Your task to perform on an android device: turn off airplane mode Image 0: 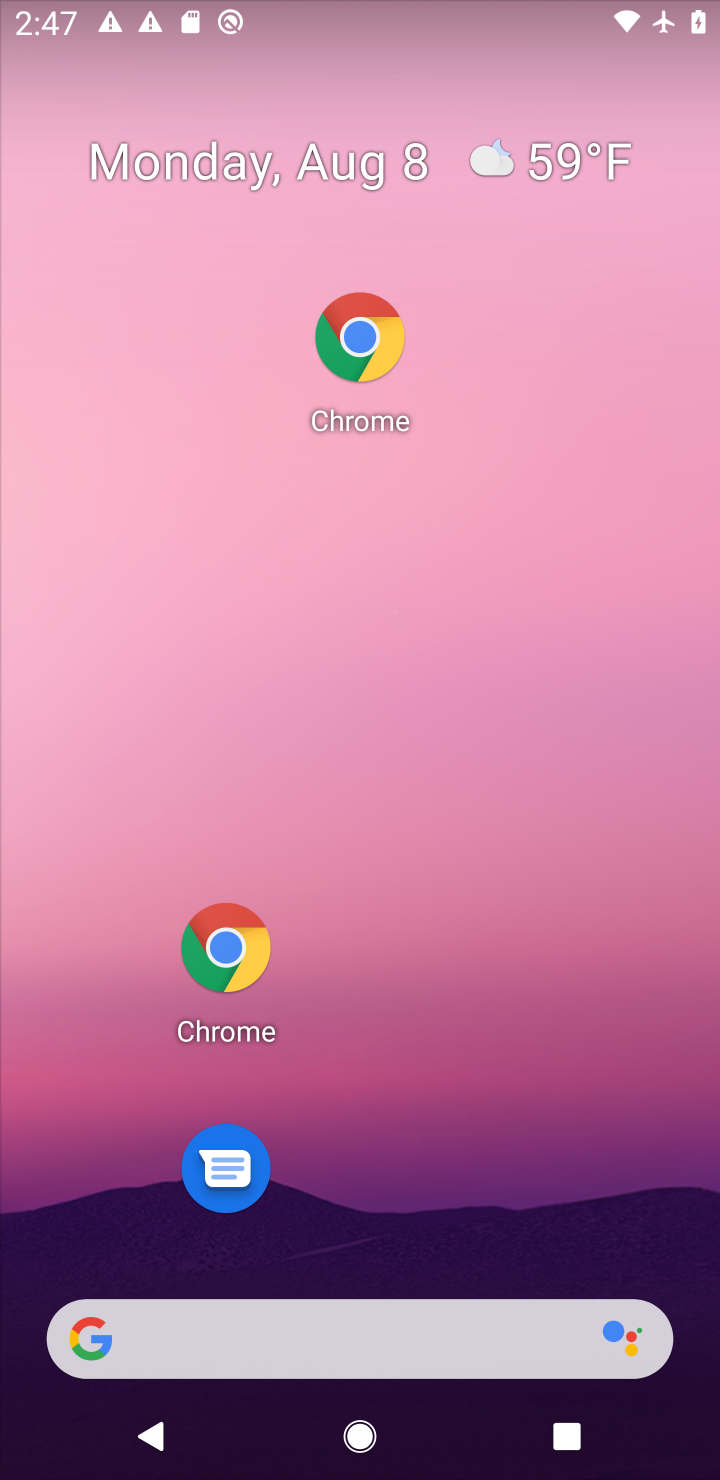
Step 0: drag from (523, 1270) to (510, 39)
Your task to perform on an android device: turn off airplane mode Image 1: 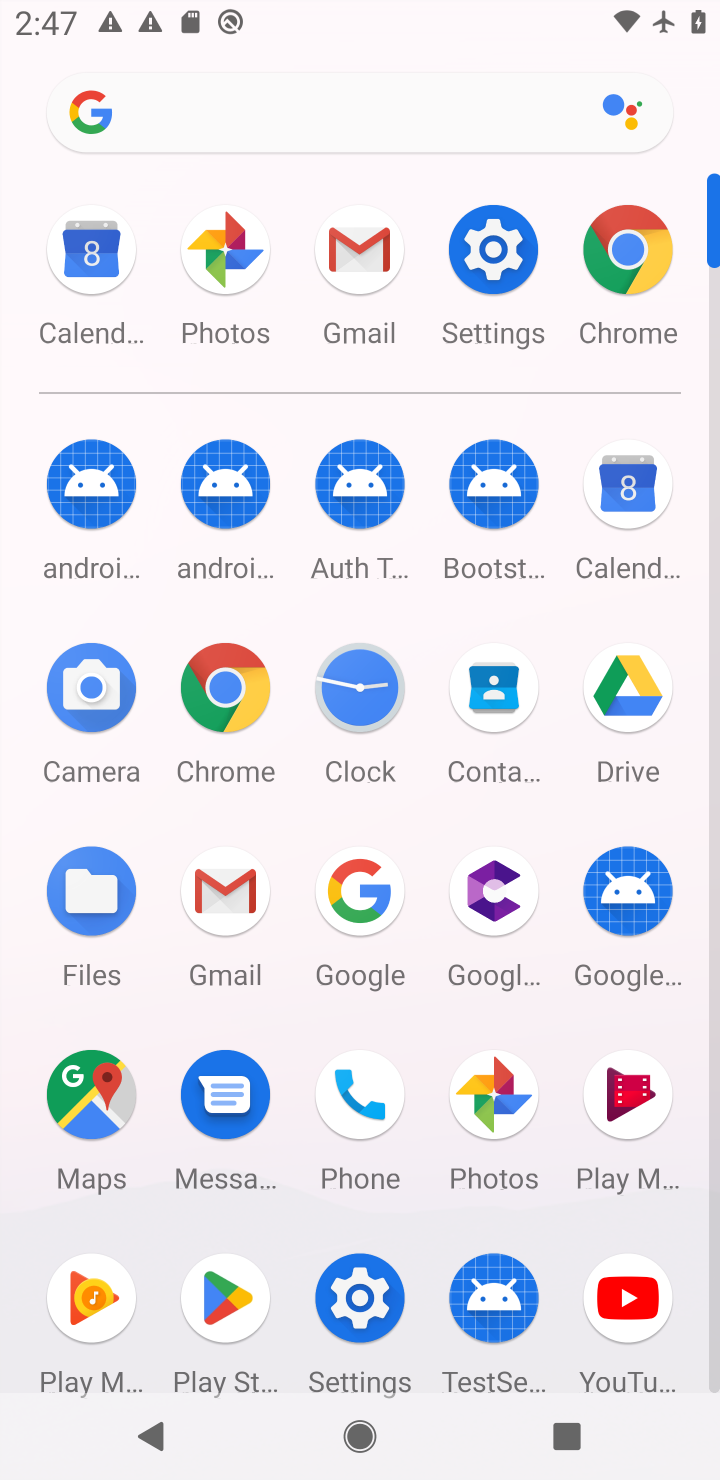
Step 1: click (482, 236)
Your task to perform on an android device: turn off airplane mode Image 2: 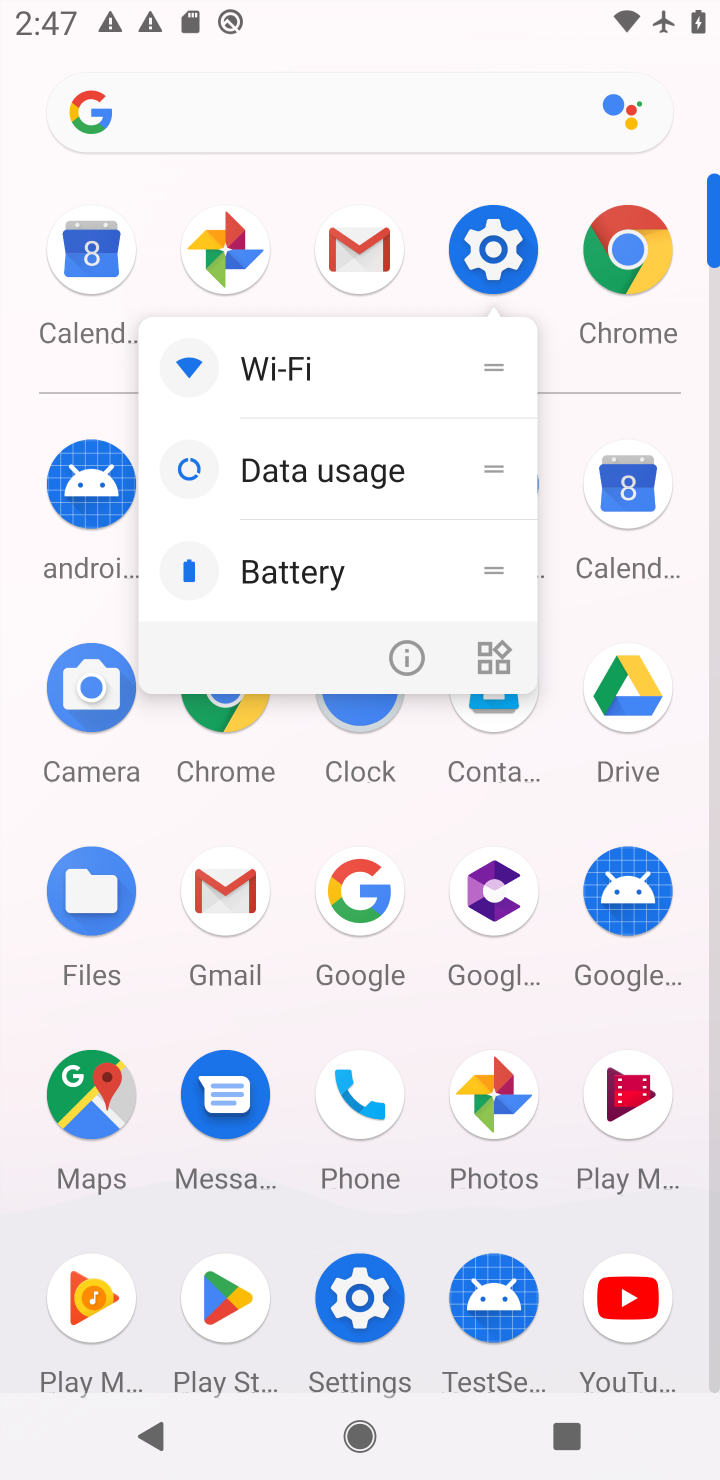
Step 2: click (482, 236)
Your task to perform on an android device: turn off airplane mode Image 3: 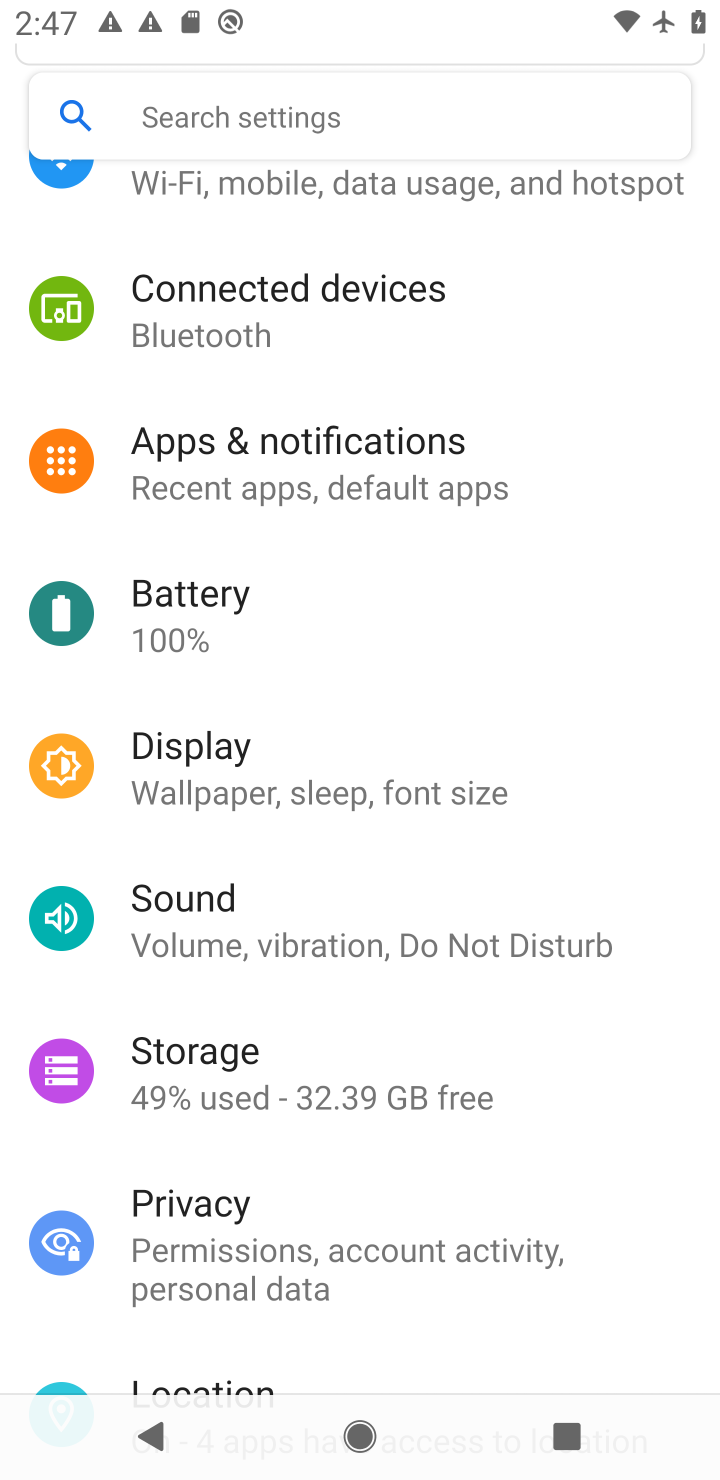
Step 3: click (452, 204)
Your task to perform on an android device: turn off airplane mode Image 4: 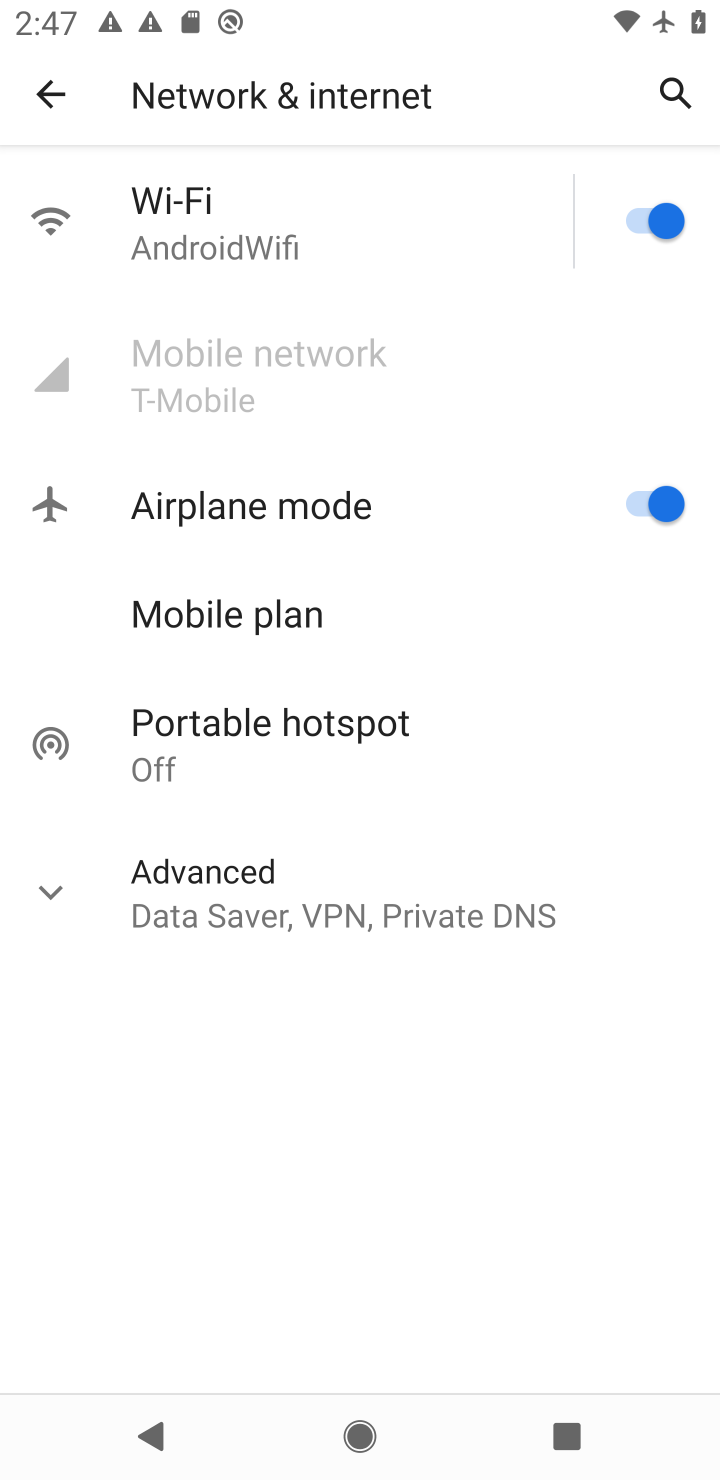
Step 4: click (497, 475)
Your task to perform on an android device: turn off airplane mode Image 5: 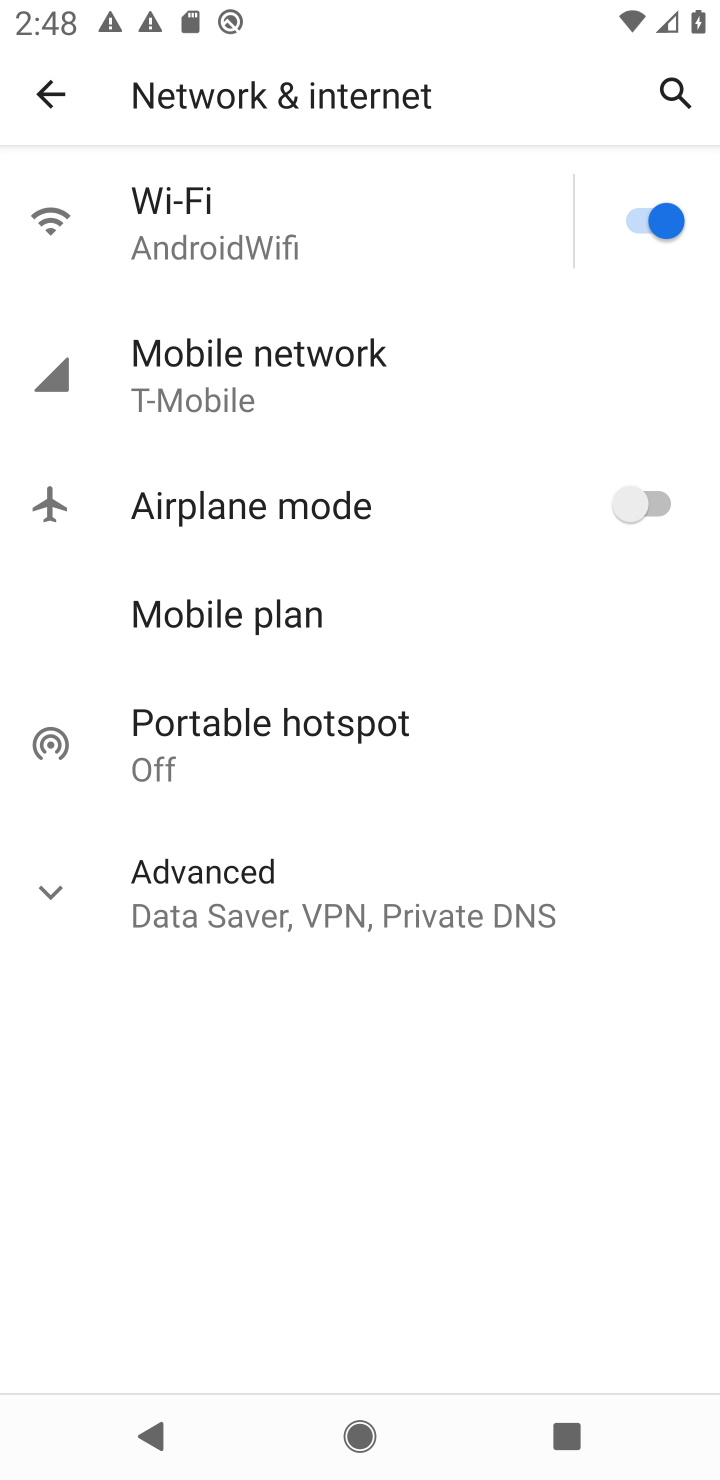
Step 5: task complete